Your task to perform on an android device: toggle notification dots Image 0: 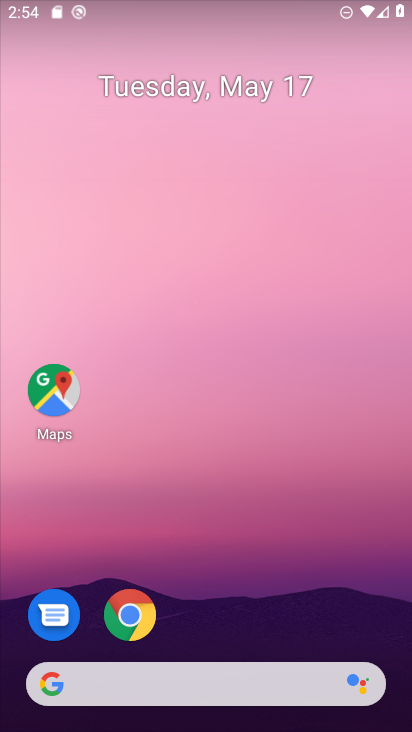
Step 0: drag from (220, 730) to (221, 174)
Your task to perform on an android device: toggle notification dots Image 1: 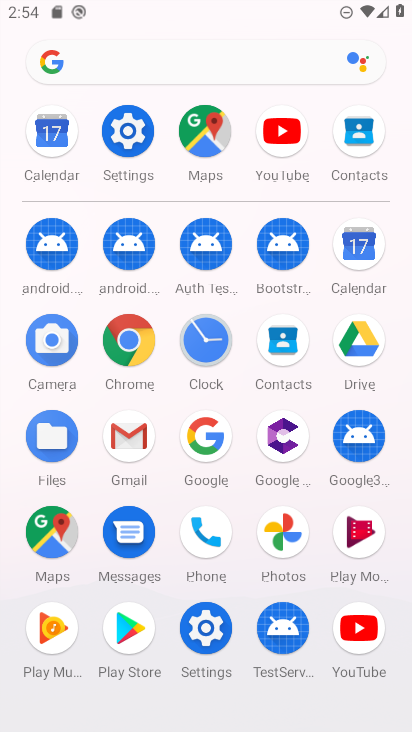
Step 1: click (126, 121)
Your task to perform on an android device: toggle notification dots Image 2: 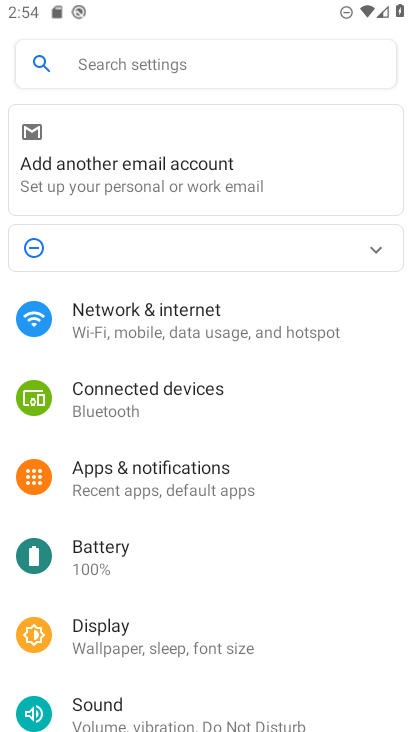
Step 2: click (183, 477)
Your task to perform on an android device: toggle notification dots Image 3: 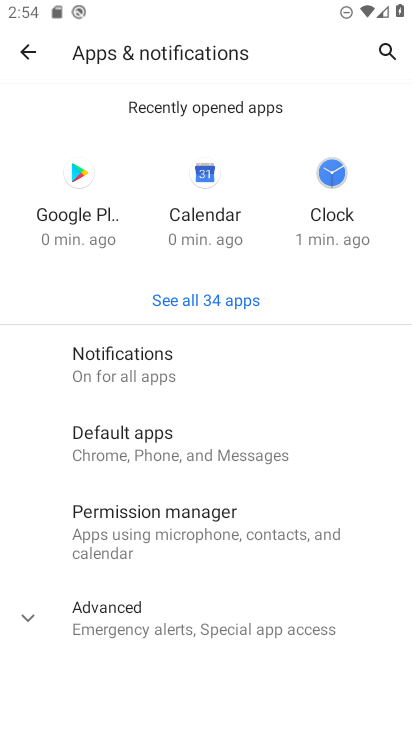
Step 3: click (117, 376)
Your task to perform on an android device: toggle notification dots Image 4: 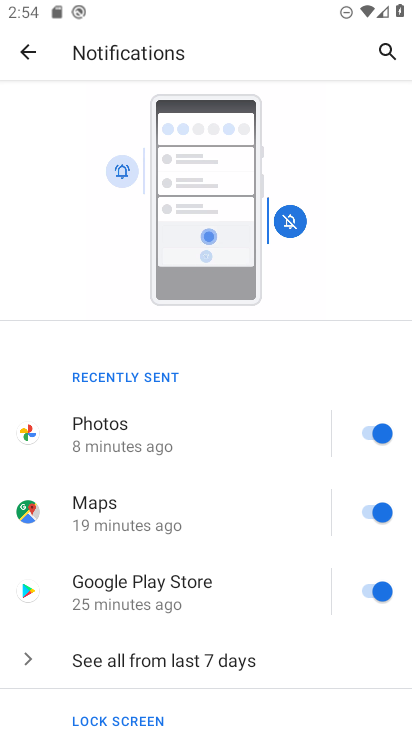
Step 4: drag from (206, 663) to (209, 360)
Your task to perform on an android device: toggle notification dots Image 5: 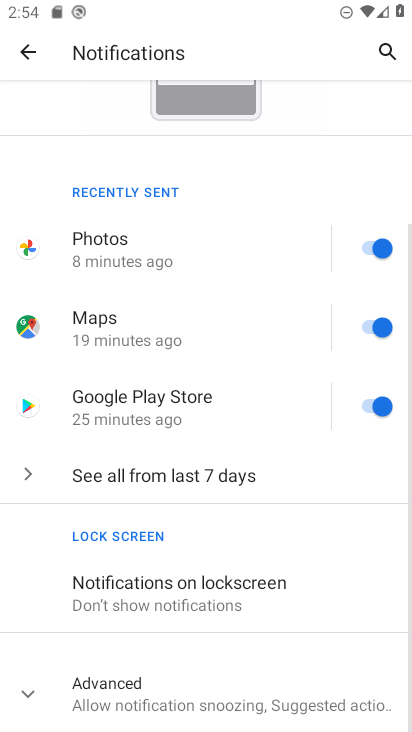
Step 5: drag from (226, 656) to (226, 451)
Your task to perform on an android device: toggle notification dots Image 6: 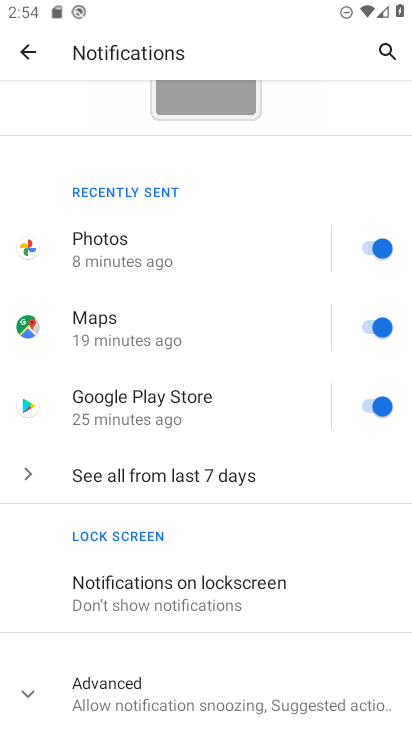
Step 6: click (171, 691)
Your task to perform on an android device: toggle notification dots Image 7: 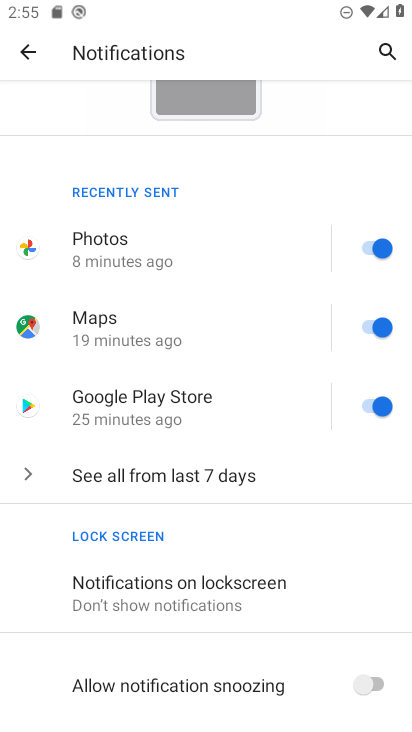
Step 7: drag from (189, 680) to (186, 422)
Your task to perform on an android device: toggle notification dots Image 8: 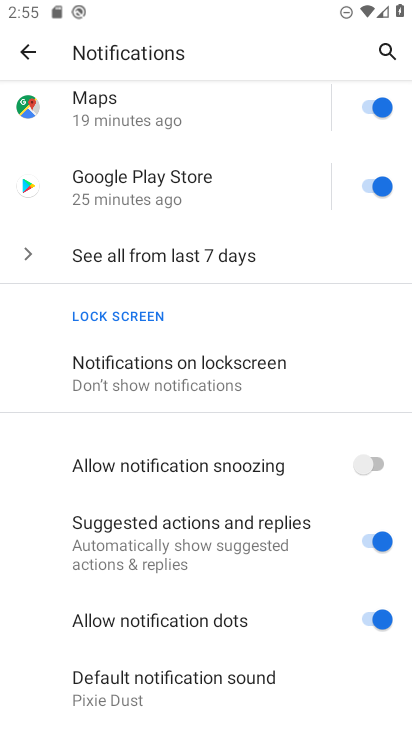
Step 8: click (363, 618)
Your task to perform on an android device: toggle notification dots Image 9: 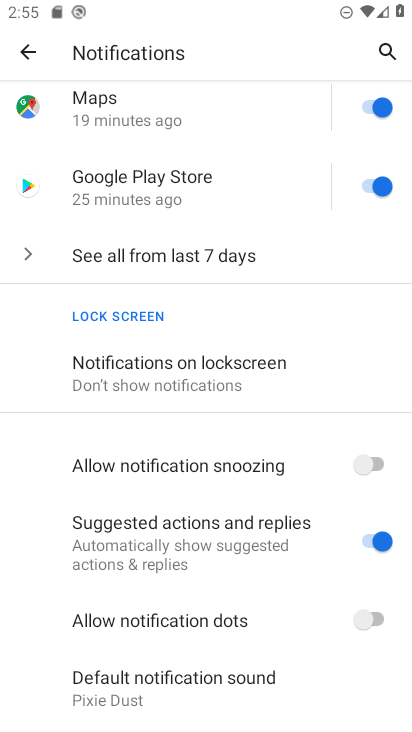
Step 9: task complete